Your task to perform on an android device: turn off wifi Image 0: 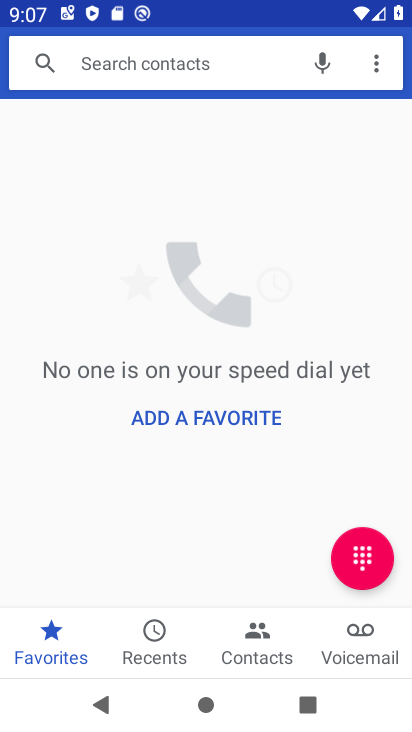
Step 0: drag from (195, 11) to (188, 581)
Your task to perform on an android device: turn off wifi Image 1: 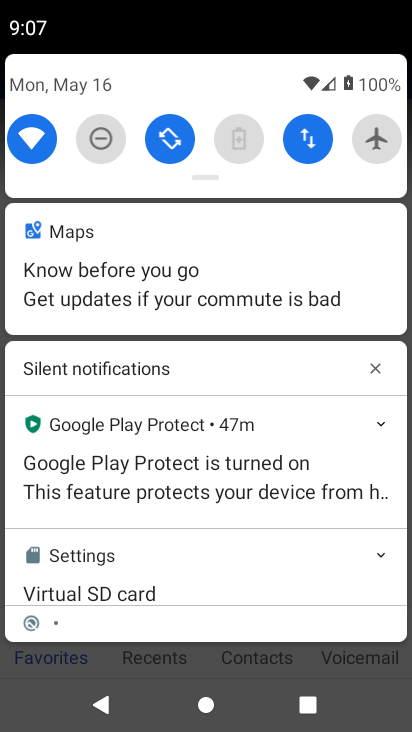
Step 1: click (22, 137)
Your task to perform on an android device: turn off wifi Image 2: 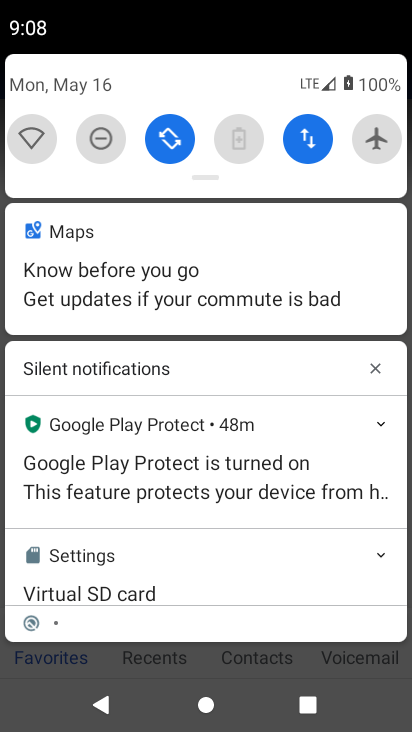
Step 2: task complete